Your task to perform on an android device: check out phone information Image 0: 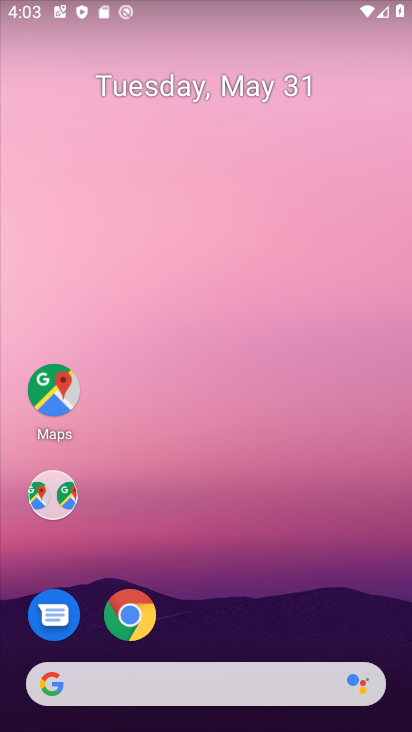
Step 0: drag from (264, 711) to (151, 122)
Your task to perform on an android device: check out phone information Image 1: 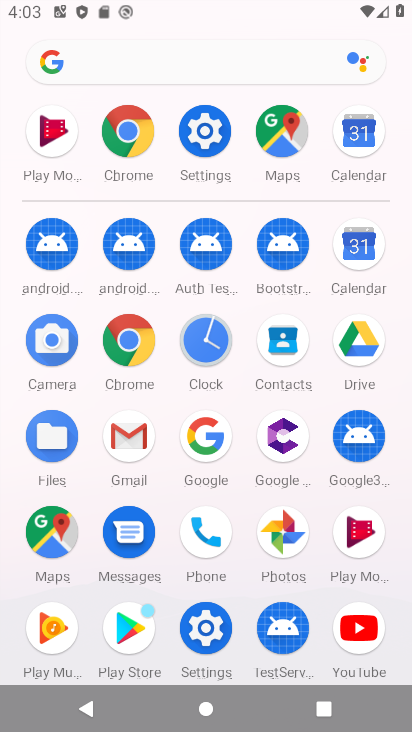
Step 1: click (198, 611)
Your task to perform on an android device: check out phone information Image 2: 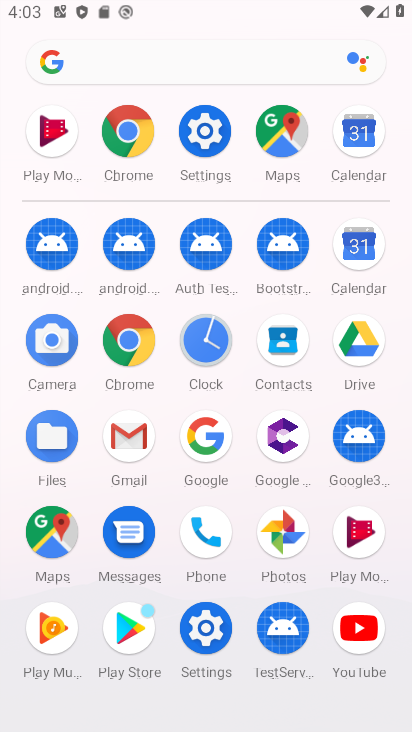
Step 2: click (198, 611)
Your task to perform on an android device: check out phone information Image 3: 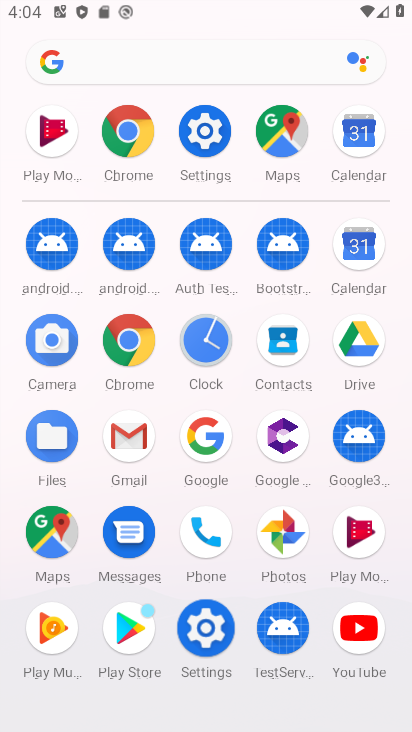
Step 3: click (198, 611)
Your task to perform on an android device: check out phone information Image 4: 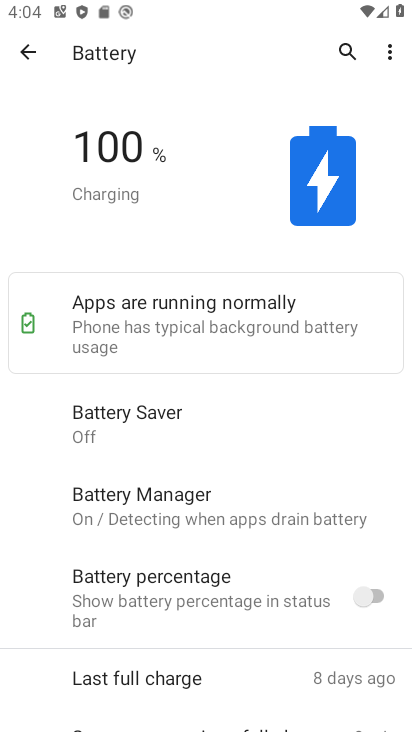
Step 4: click (13, 42)
Your task to perform on an android device: check out phone information Image 5: 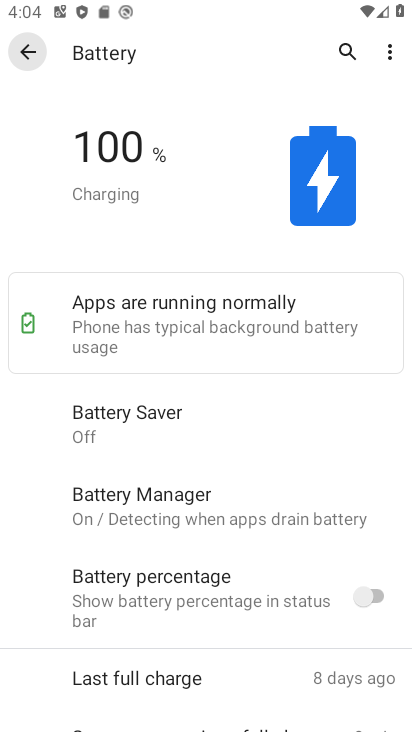
Step 5: click (17, 40)
Your task to perform on an android device: check out phone information Image 6: 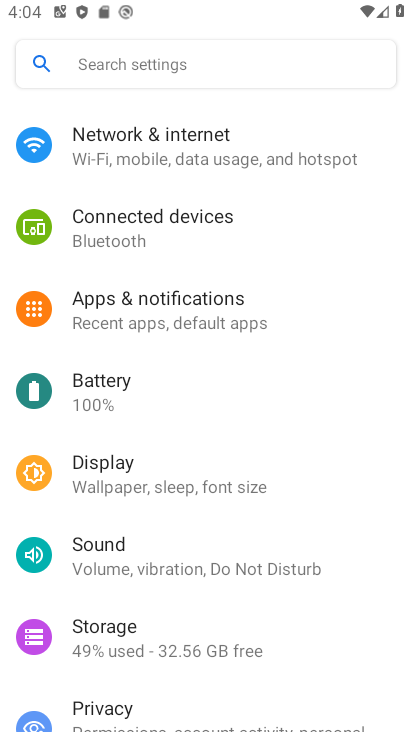
Step 6: click (23, 45)
Your task to perform on an android device: check out phone information Image 7: 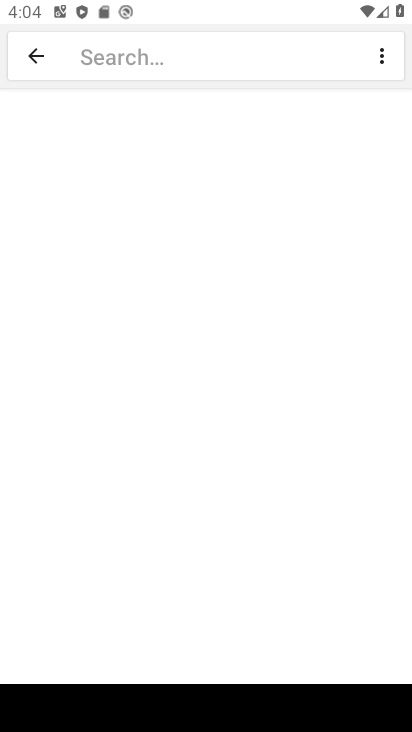
Step 7: click (29, 48)
Your task to perform on an android device: check out phone information Image 8: 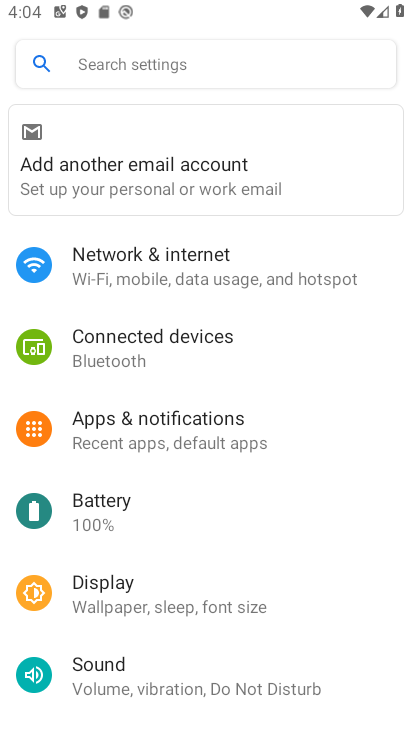
Step 8: drag from (172, 501) to (180, 226)
Your task to perform on an android device: check out phone information Image 9: 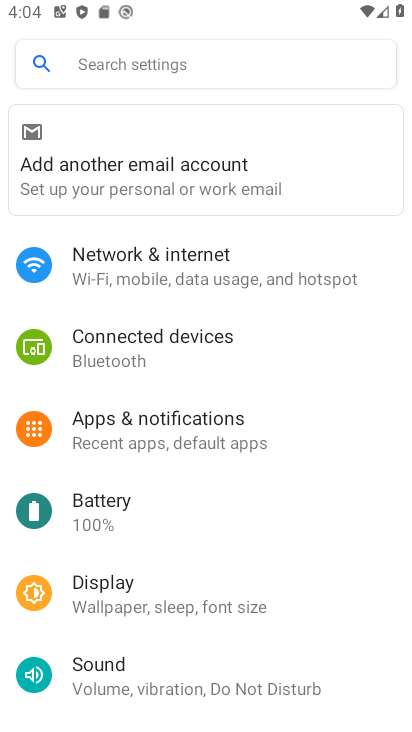
Step 9: drag from (170, 182) to (158, 116)
Your task to perform on an android device: check out phone information Image 10: 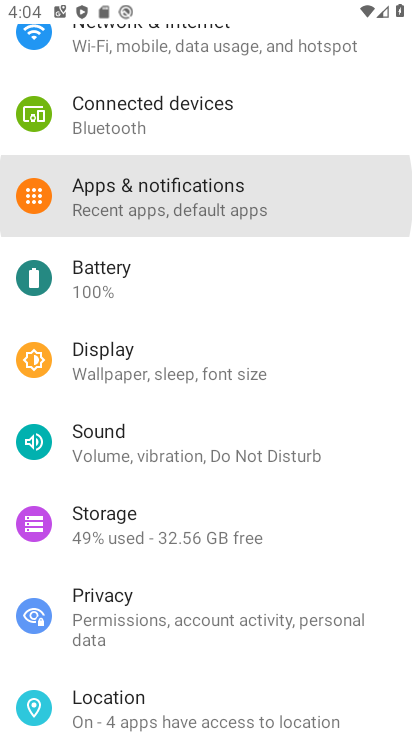
Step 10: click (213, 62)
Your task to perform on an android device: check out phone information Image 11: 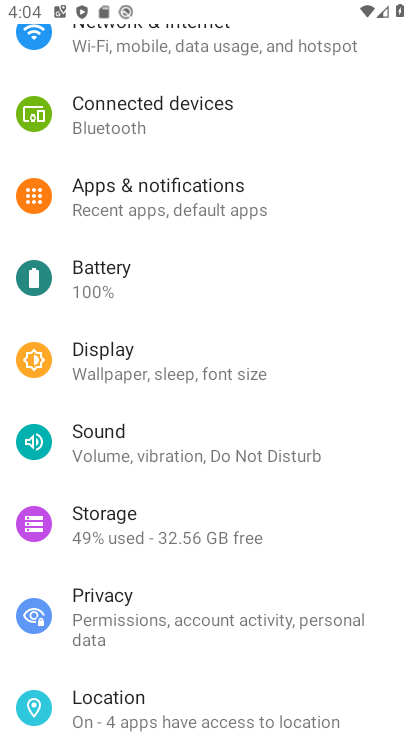
Step 11: drag from (250, 445) to (230, 53)
Your task to perform on an android device: check out phone information Image 12: 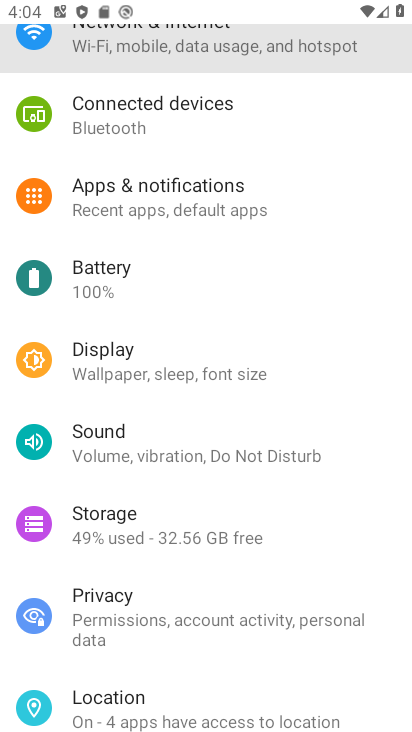
Step 12: drag from (212, 453) to (193, 73)
Your task to perform on an android device: check out phone information Image 13: 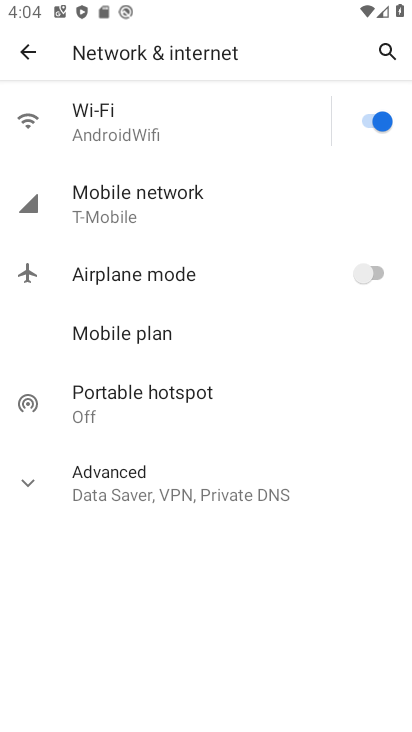
Step 13: drag from (164, 507) to (163, 139)
Your task to perform on an android device: check out phone information Image 14: 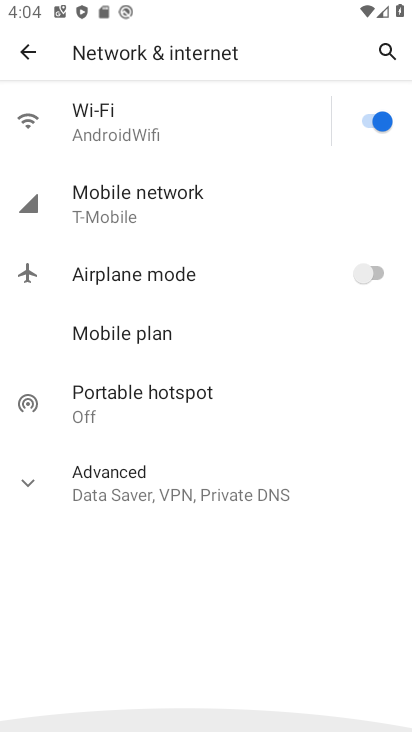
Step 14: drag from (165, 495) to (157, 152)
Your task to perform on an android device: check out phone information Image 15: 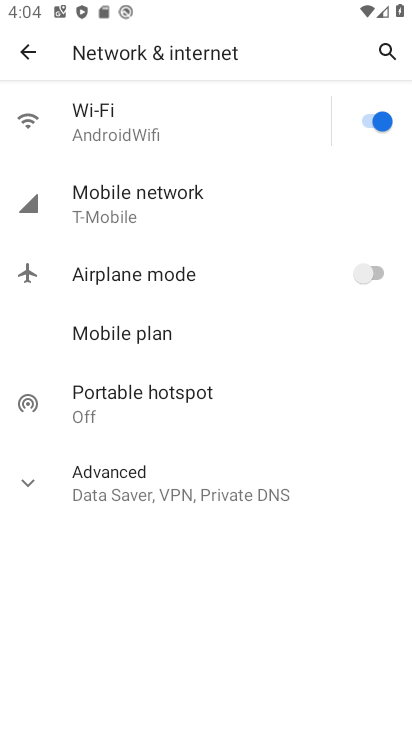
Step 15: click (25, 37)
Your task to perform on an android device: check out phone information Image 16: 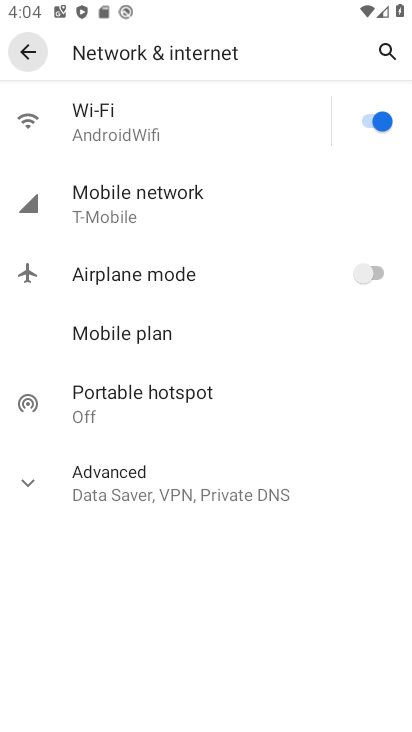
Step 16: click (25, 50)
Your task to perform on an android device: check out phone information Image 17: 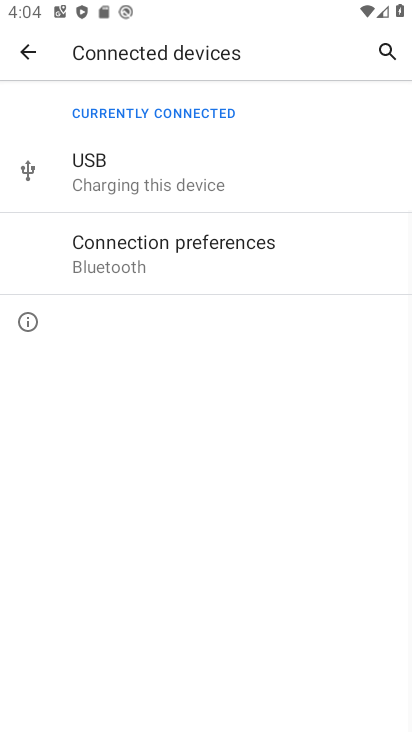
Step 17: click (26, 53)
Your task to perform on an android device: check out phone information Image 18: 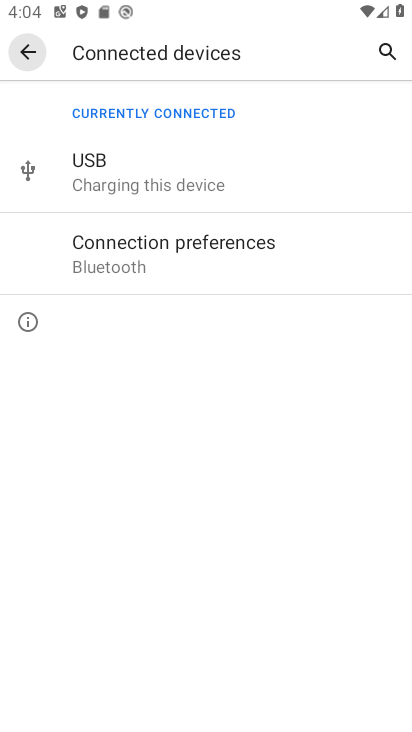
Step 18: click (27, 52)
Your task to perform on an android device: check out phone information Image 19: 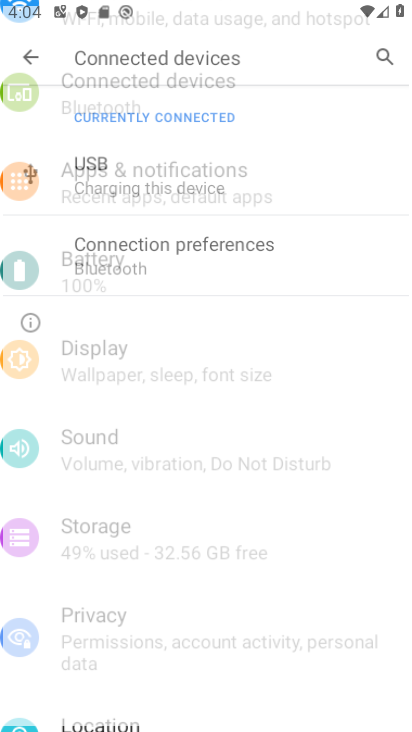
Step 19: click (28, 51)
Your task to perform on an android device: check out phone information Image 20: 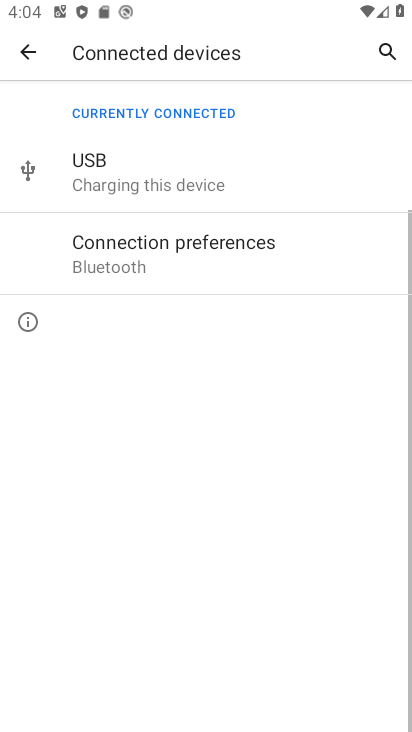
Step 20: click (39, 55)
Your task to perform on an android device: check out phone information Image 21: 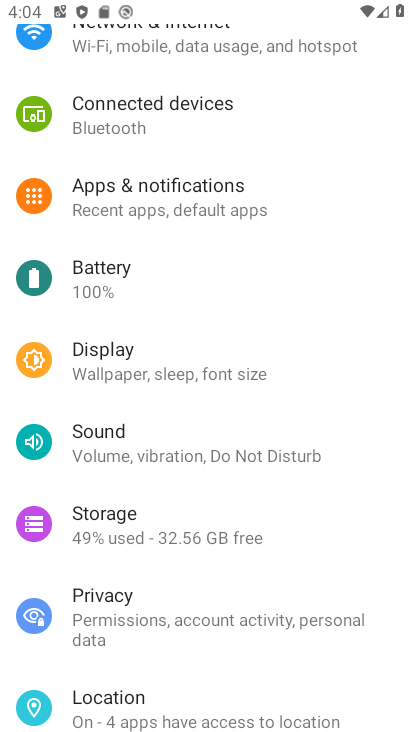
Step 21: drag from (128, 570) to (124, 376)
Your task to perform on an android device: check out phone information Image 22: 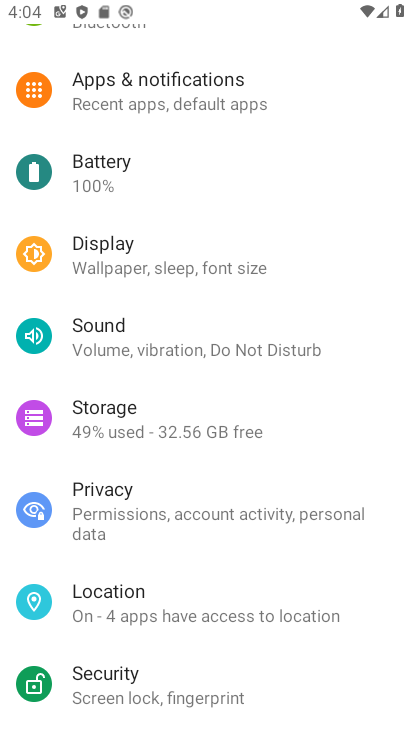
Step 22: drag from (197, 614) to (222, 215)
Your task to perform on an android device: check out phone information Image 23: 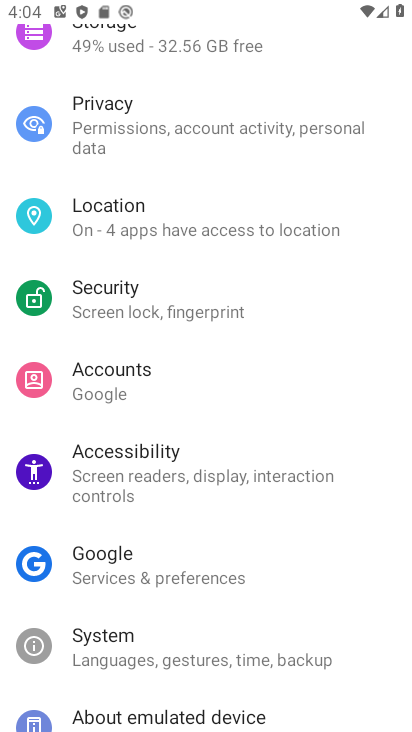
Step 23: drag from (197, 542) to (217, 200)
Your task to perform on an android device: check out phone information Image 24: 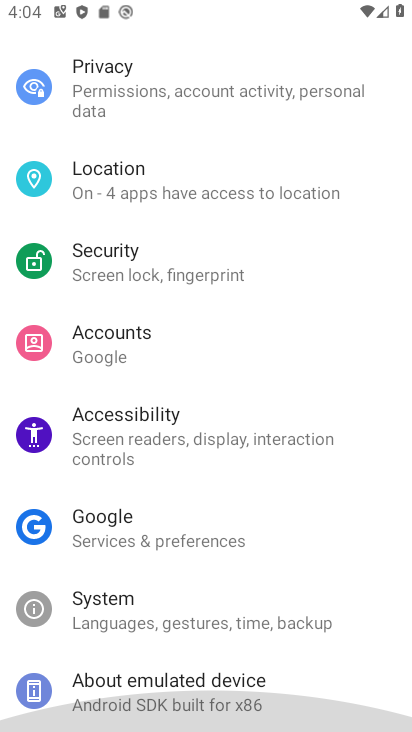
Step 24: drag from (130, 546) to (142, 168)
Your task to perform on an android device: check out phone information Image 25: 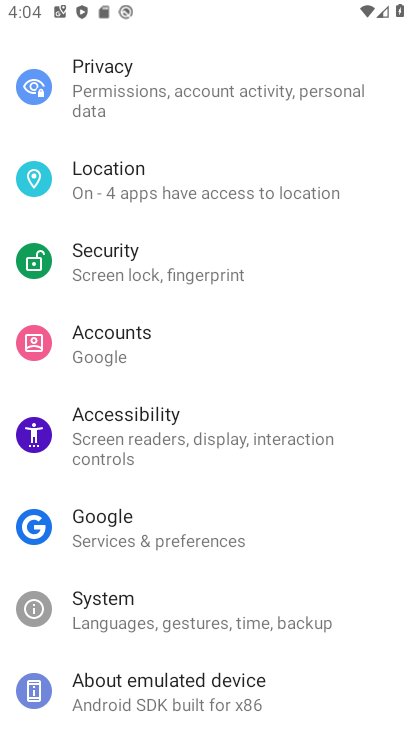
Step 25: click (148, 692)
Your task to perform on an android device: check out phone information Image 26: 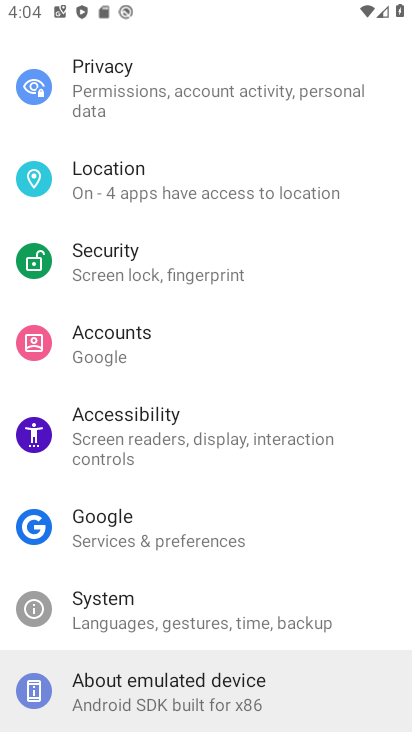
Step 26: click (149, 691)
Your task to perform on an android device: check out phone information Image 27: 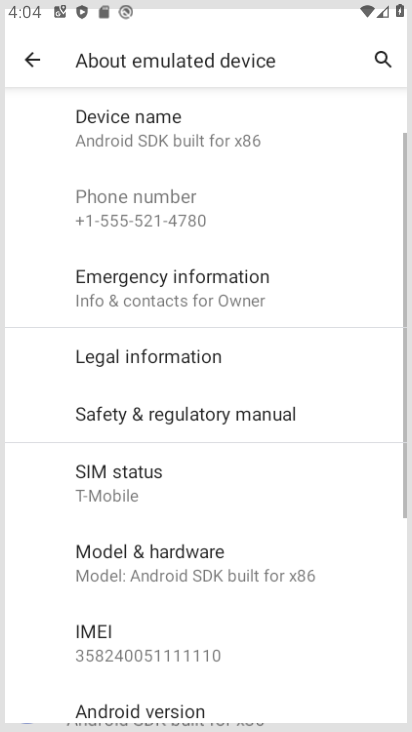
Step 27: click (149, 690)
Your task to perform on an android device: check out phone information Image 28: 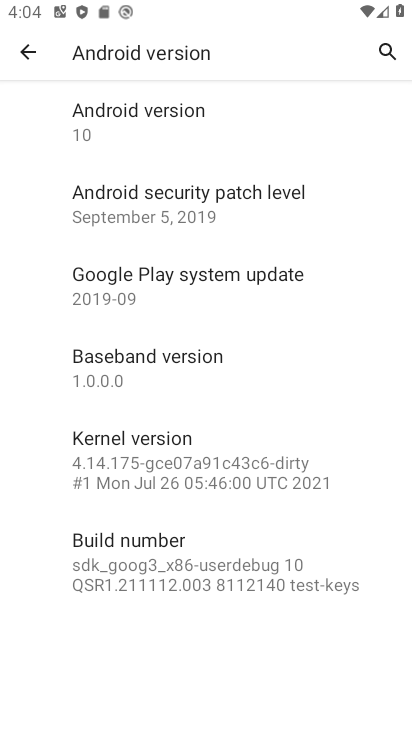
Step 28: click (26, 54)
Your task to perform on an android device: check out phone information Image 29: 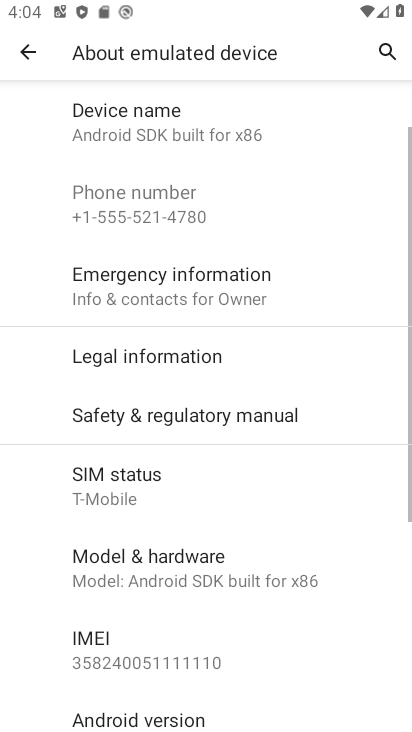
Step 29: task complete